Your task to perform on an android device: open app "File Manager" Image 0: 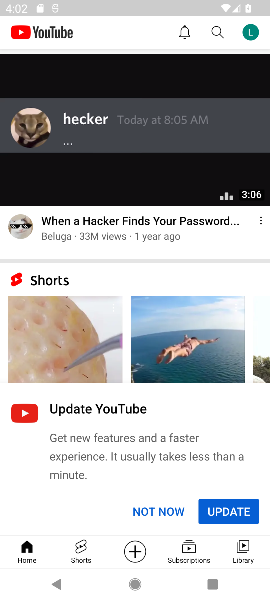
Step 0: press home button
Your task to perform on an android device: open app "File Manager" Image 1: 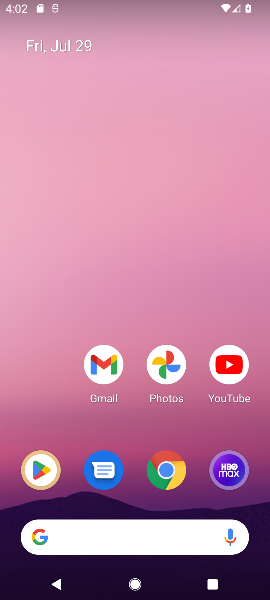
Step 1: click (38, 486)
Your task to perform on an android device: open app "File Manager" Image 2: 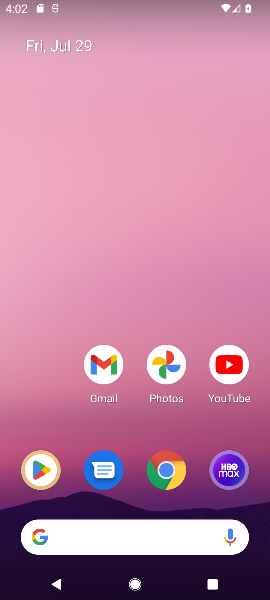
Step 2: click (38, 486)
Your task to perform on an android device: open app "File Manager" Image 3: 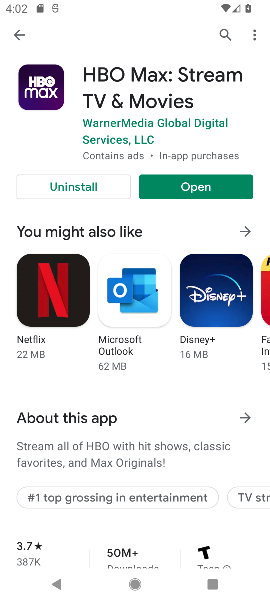
Step 3: click (221, 35)
Your task to perform on an android device: open app "File Manager" Image 4: 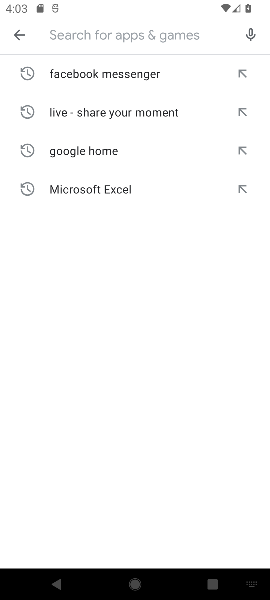
Step 4: type "file Manager""
Your task to perform on an android device: open app "File Manager" Image 5: 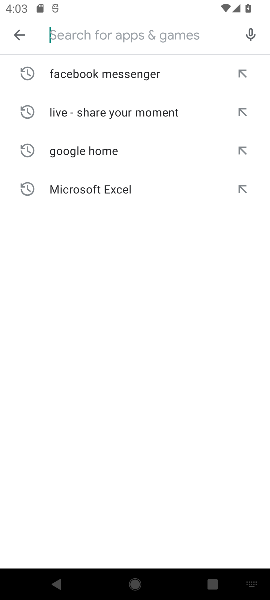
Step 5: type "file Manager"
Your task to perform on an android device: open app "File Manager" Image 6: 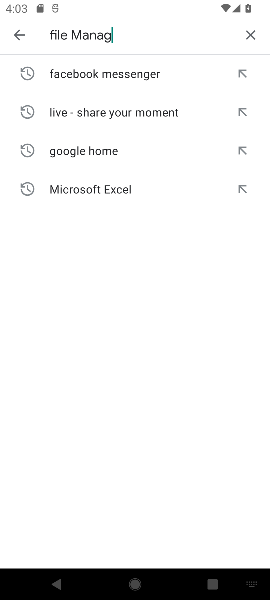
Step 6: type ""
Your task to perform on an android device: open app "File Manager" Image 7: 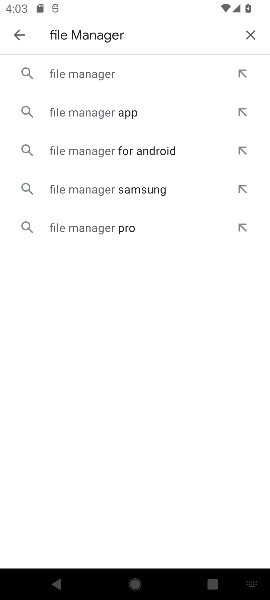
Step 7: click (95, 68)
Your task to perform on an android device: open app "File Manager" Image 8: 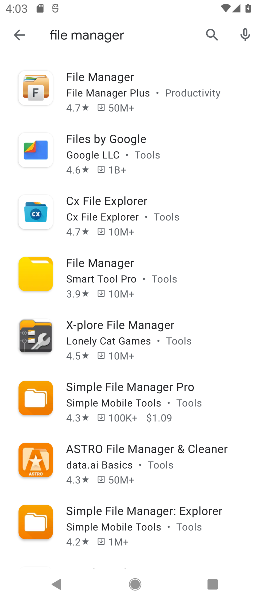
Step 8: task complete